Your task to perform on an android device: open the mobile data screen to see how much data has been used Image 0: 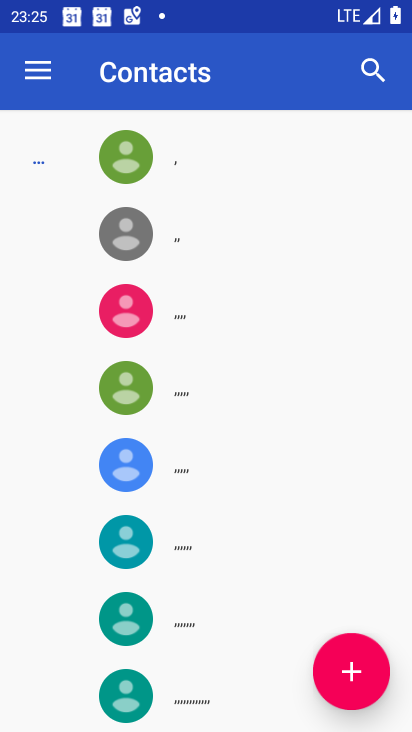
Step 0: press home button
Your task to perform on an android device: open the mobile data screen to see how much data has been used Image 1: 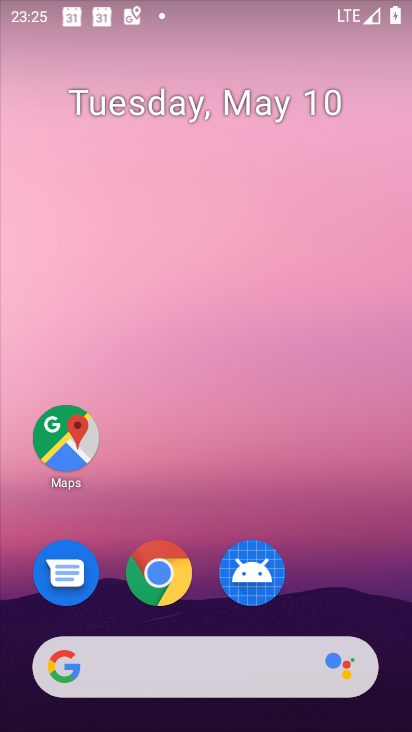
Step 1: drag from (346, 548) to (264, 100)
Your task to perform on an android device: open the mobile data screen to see how much data has been used Image 2: 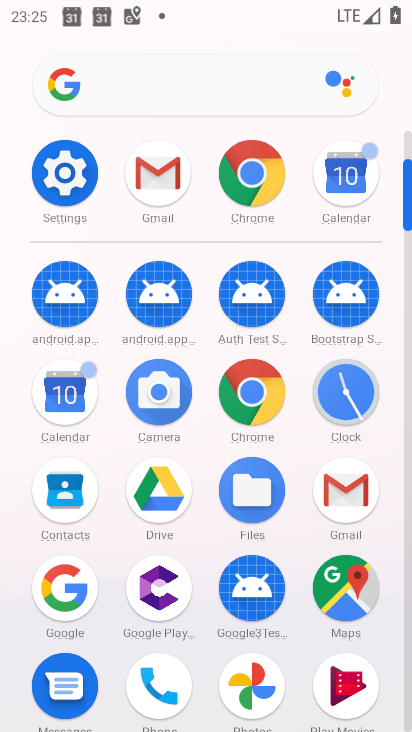
Step 2: click (70, 180)
Your task to perform on an android device: open the mobile data screen to see how much data has been used Image 3: 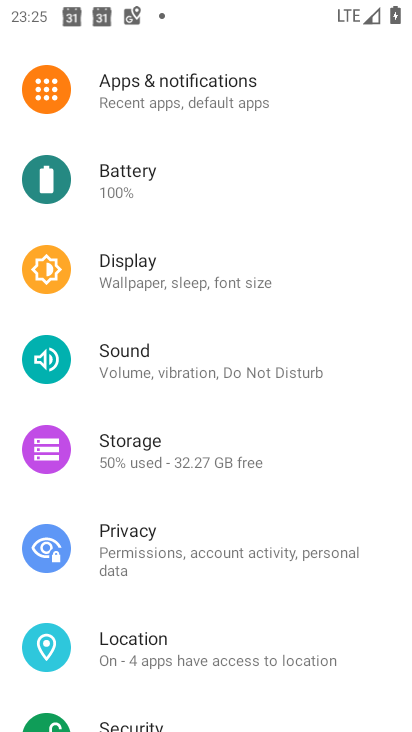
Step 3: drag from (193, 119) to (193, 558)
Your task to perform on an android device: open the mobile data screen to see how much data has been used Image 4: 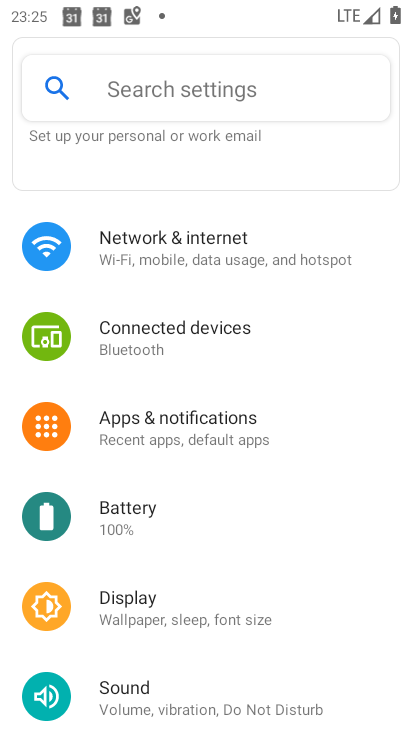
Step 4: click (172, 246)
Your task to perform on an android device: open the mobile data screen to see how much data has been used Image 5: 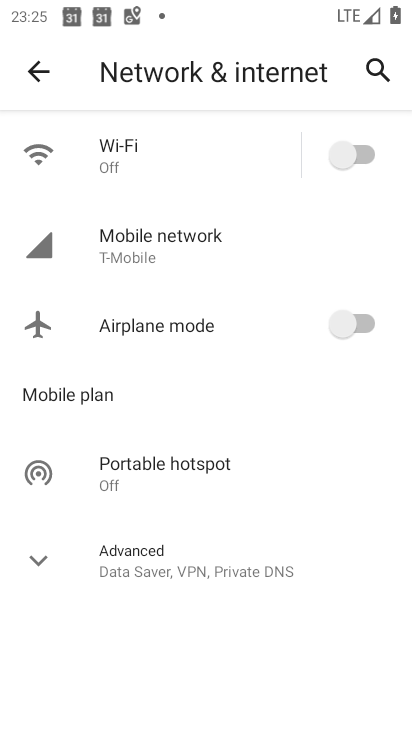
Step 5: click (149, 238)
Your task to perform on an android device: open the mobile data screen to see how much data has been used Image 6: 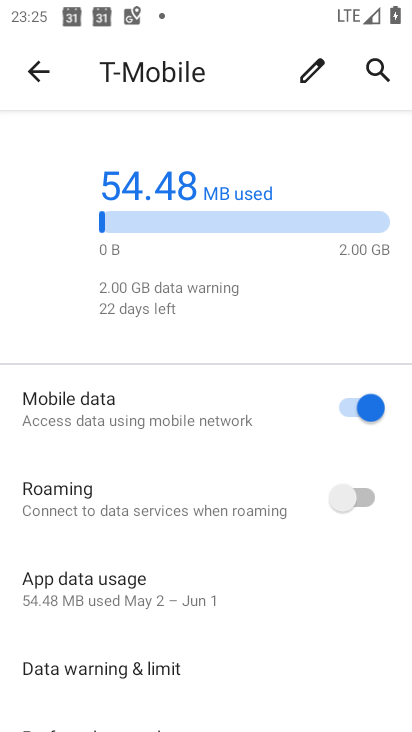
Step 6: task complete